Your task to perform on an android device: Open accessibility settings Image 0: 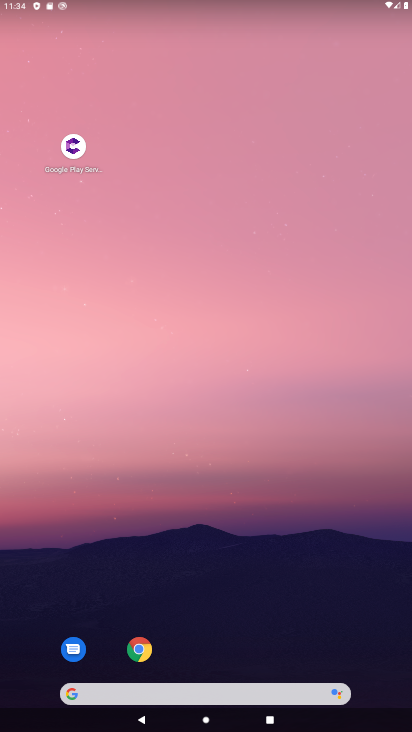
Step 0: drag from (330, 621) to (271, 64)
Your task to perform on an android device: Open accessibility settings Image 1: 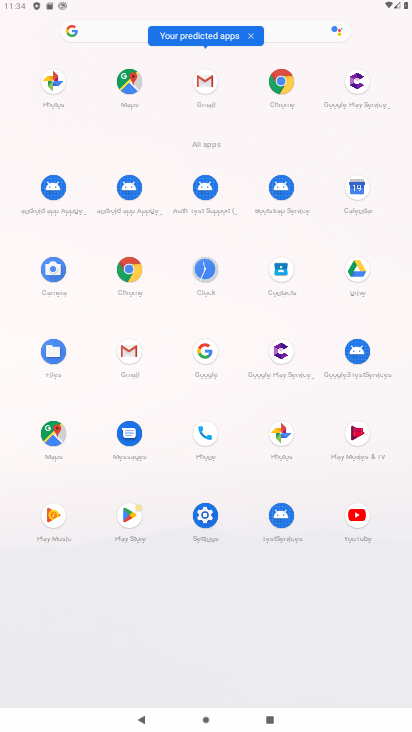
Step 1: click (201, 515)
Your task to perform on an android device: Open accessibility settings Image 2: 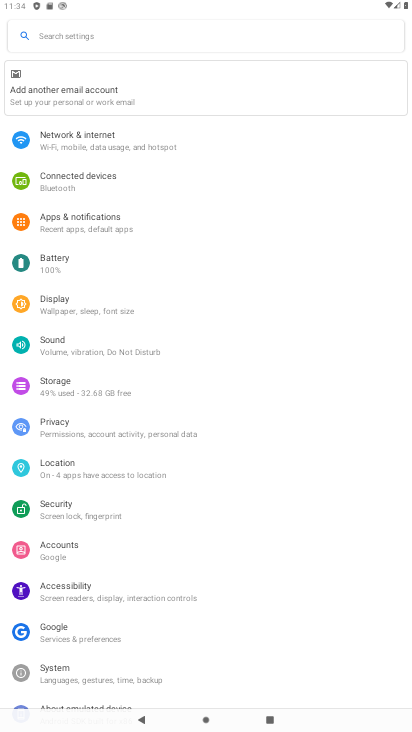
Step 2: click (98, 588)
Your task to perform on an android device: Open accessibility settings Image 3: 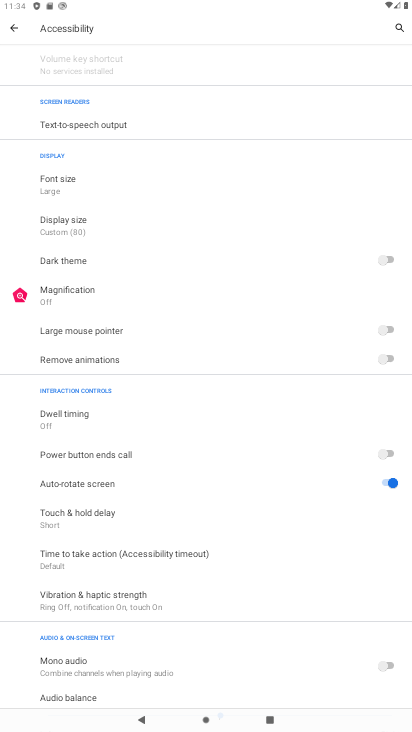
Step 3: task complete